Your task to perform on an android device: Play the last video I watched on Youtube Image 0: 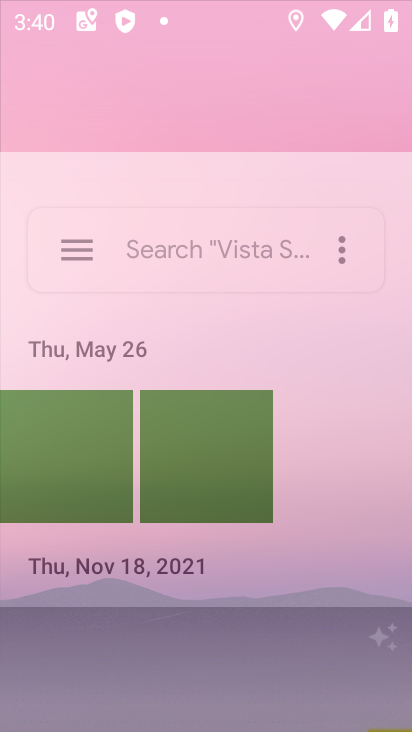
Step 0: press home button
Your task to perform on an android device: Play the last video I watched on Youtube Image 1: 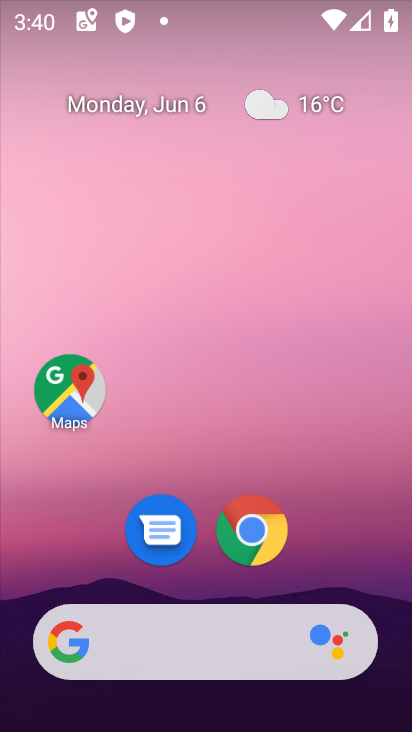
Step 1: drag from (347, 535) to (363, 96)
Your task to perform on an android device: Play the last video I watched on Youtube Image 2: 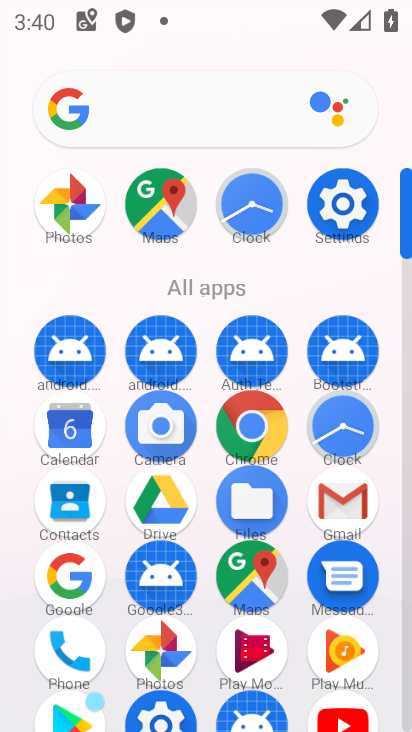
Step 2: click (331, 705)
Your task to perform on an android device: Play the last video I watched on Youtube Image 3: 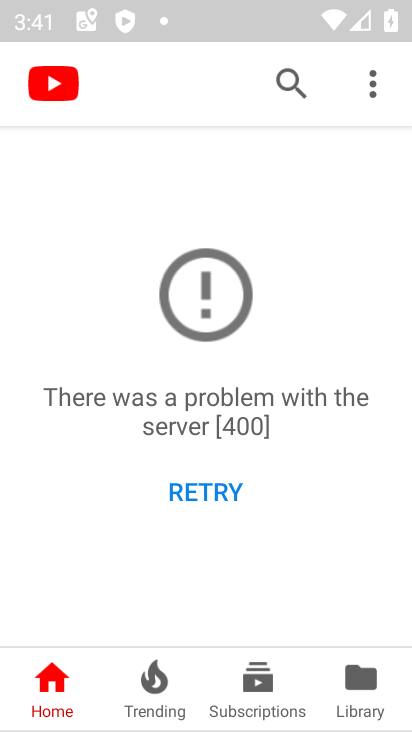
Step 3: click (352, 687)
Your task to perform on an android device: Play the last video I watched on Youtube Image 4: 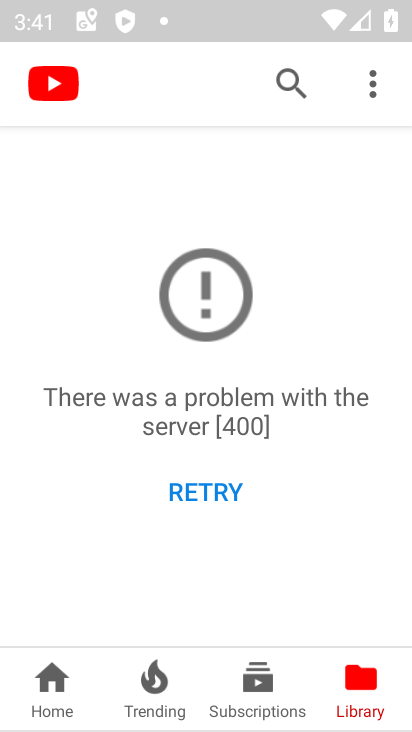
Step 4: task complete